Your task to perform on an android device: change timer sound Image 0: 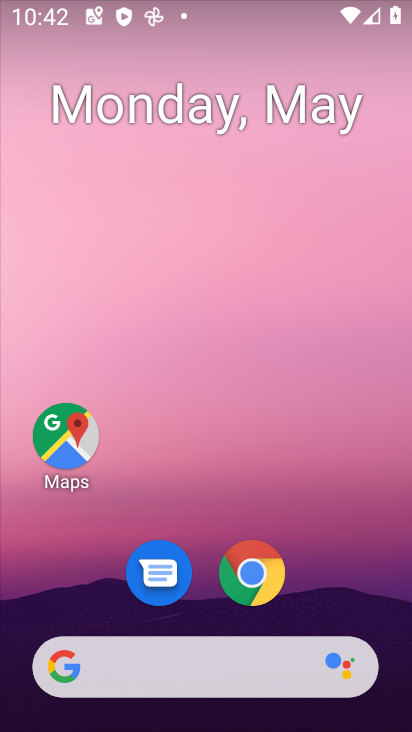
Step 0: drag from (358, 601) to (302, 84)
Your task to perform on an android device: change timer sound Image 1: 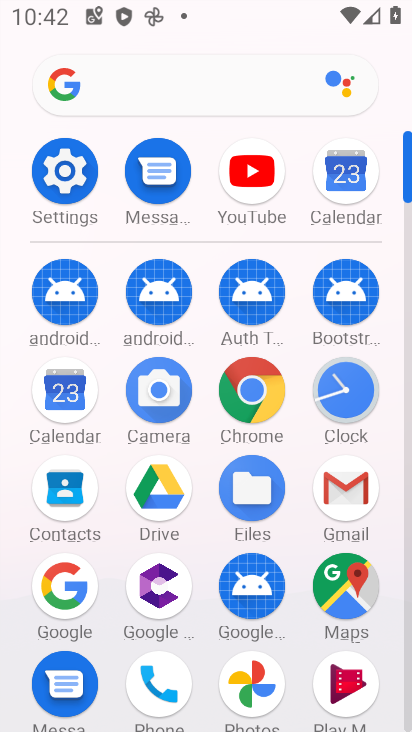
Step 1: click (68, 170)
Your task to perform on an android device: change timer sound Image 2: 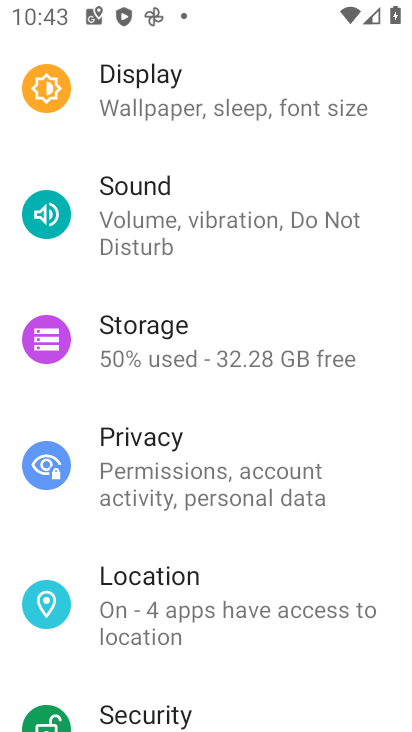
Step 2: press home button
Your task to perform on an android device: change timer sound Image 3: 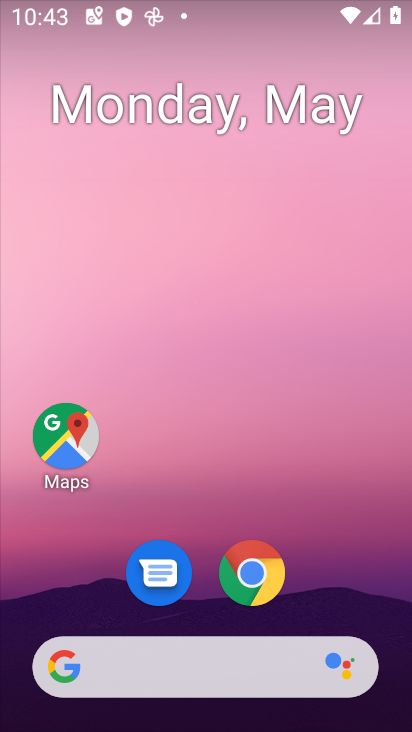
Step 3: drag from (326, 597) to (262, 99)
Your task to perform on an android device: change timer sound Image 4: 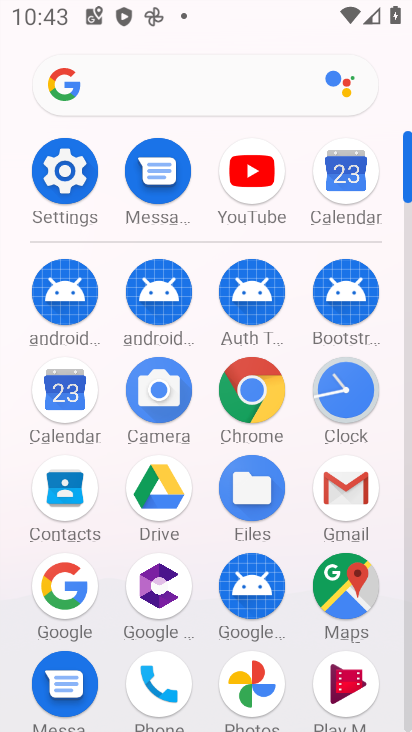
Step 4: click (348, 380)
Your task to perform on an android device: change timer sound Image 5: 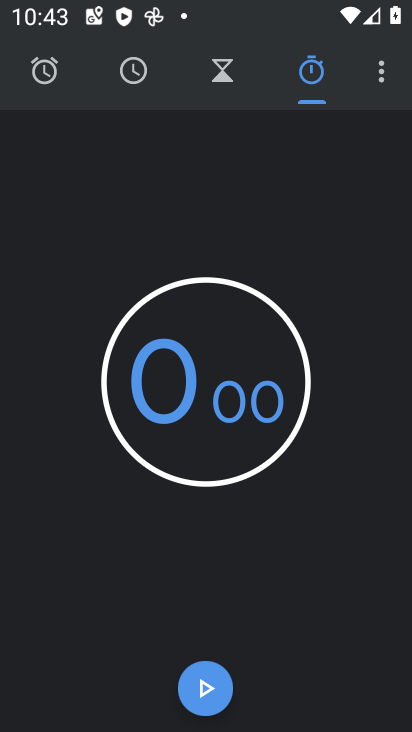
Step 5: click (399, 84)
Your task to perform on an android device: change timer sound Image 6: 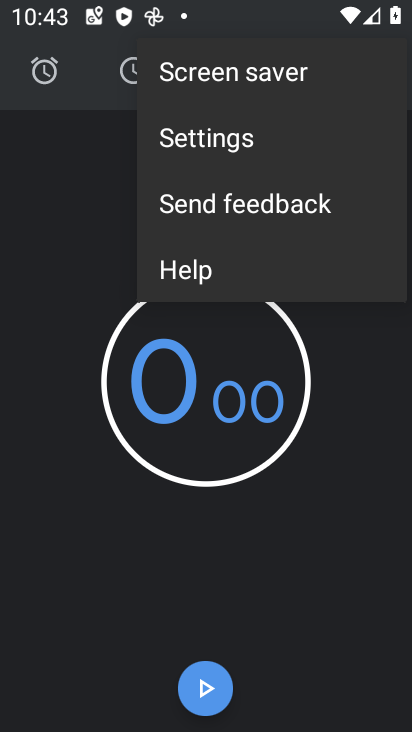
Step 6: click (232, 125)
Your task to perform on an android device: change timer sound Image 7: 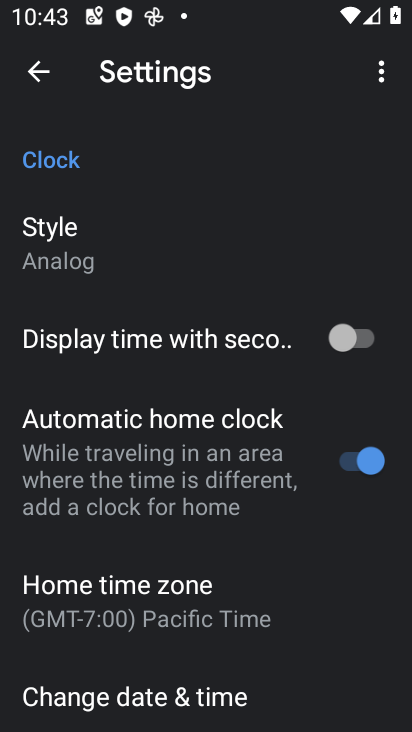
Step 7: drag from (143, 575) to (147, 229)
Your task to perform on an android device: change timer sound Image 8: 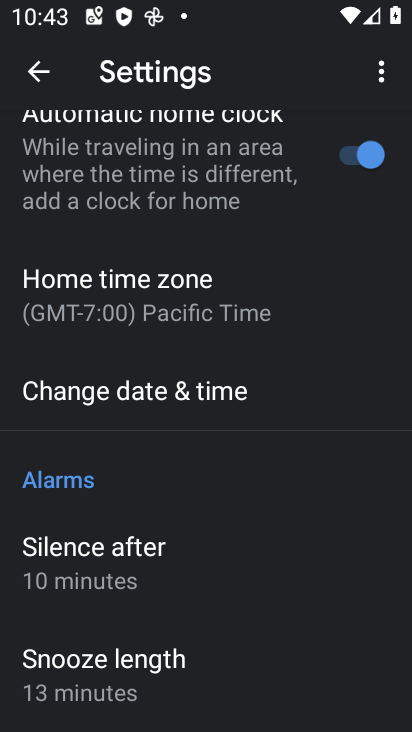
Step 8: drag from (183, 631) to (212, 18)
Your task to perform on an android device: change timer sound Image 9: 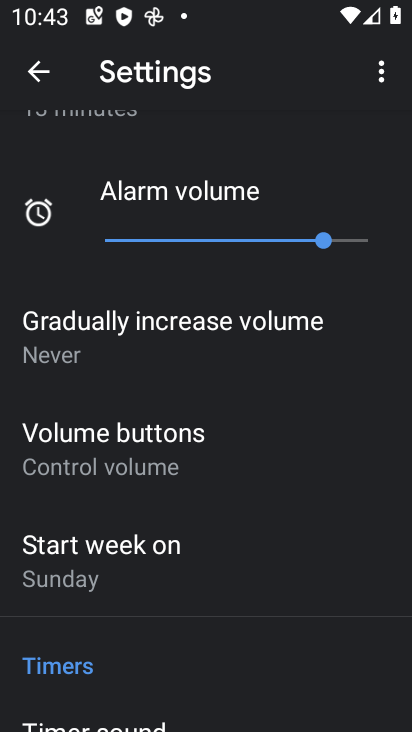
Step 9: drag from (239, 649) to (229, 304)
Your task to perform on an android device: change timer sound Image 10: 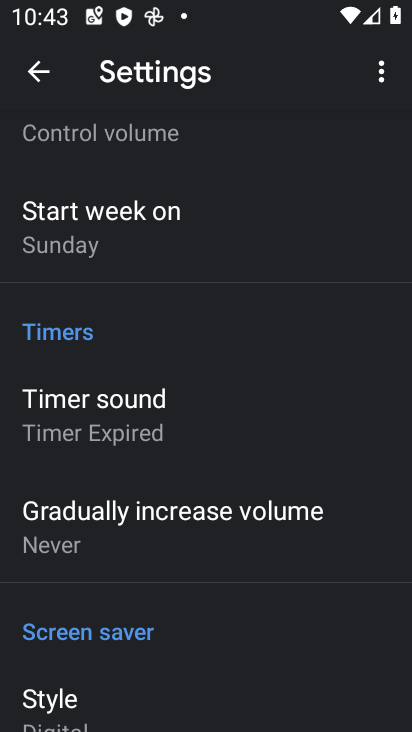
Step 10: click (209, 463)
Your task to perform on an android device: change timer sound Image 11: 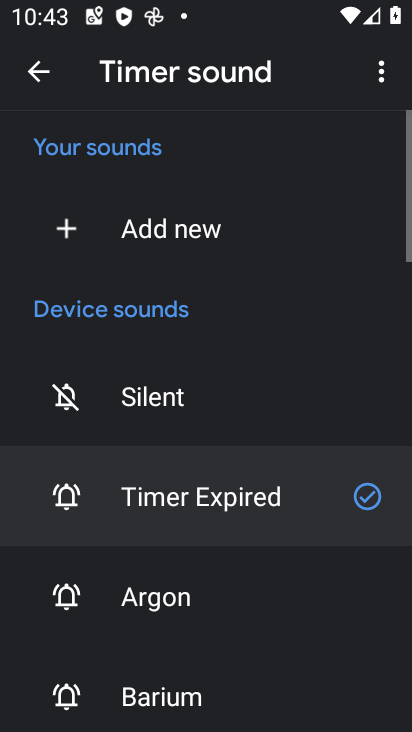
Step 11: click (191, 395)
Your task to perform on an android device: change timer sound Image 12: 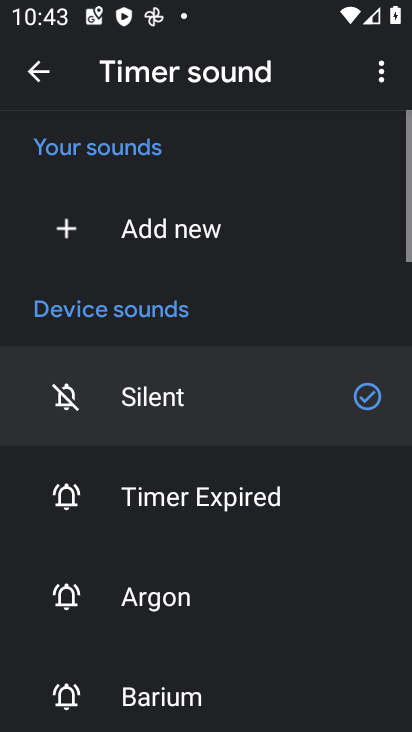
Step 12: task complete